Your task to perform on an android device: turn vacation reply on in the gmail app Image 0: 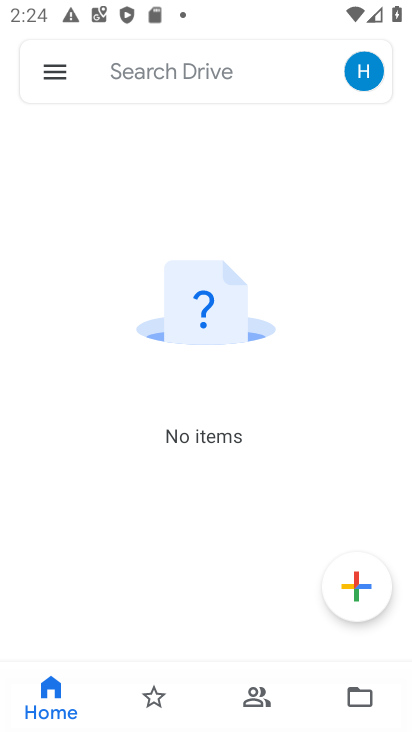
Step 0: press home button
Your task to perform on an android device: turn vacation reply on in the gmail app Image 1: 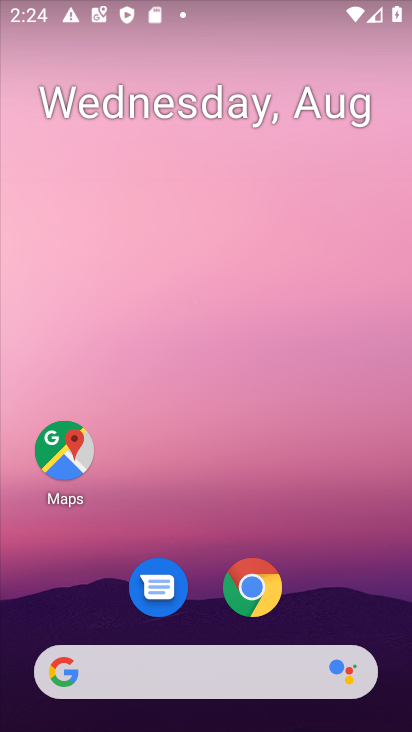
Step 1: drag from (56, 359) to (214, 0)
Your task to perform on an android device: turn vacation reply on in the gmail app Image 2: 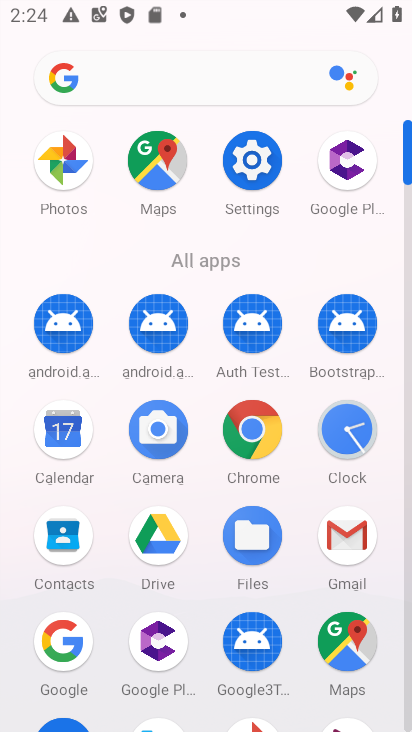
Step 2: click (345, 533)
Your task to perform on an android device: turn vacation reply on in the gmail app Image 3: 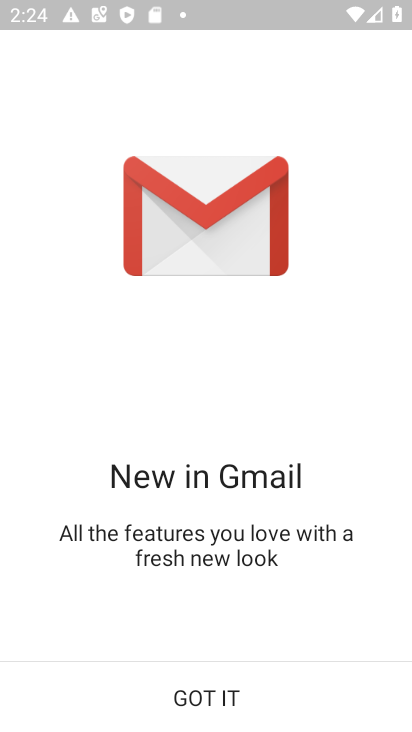
Step 3: click (198, 698)
Your task to perform on an android device: turn vacation reply on in the gmail app Image 4: 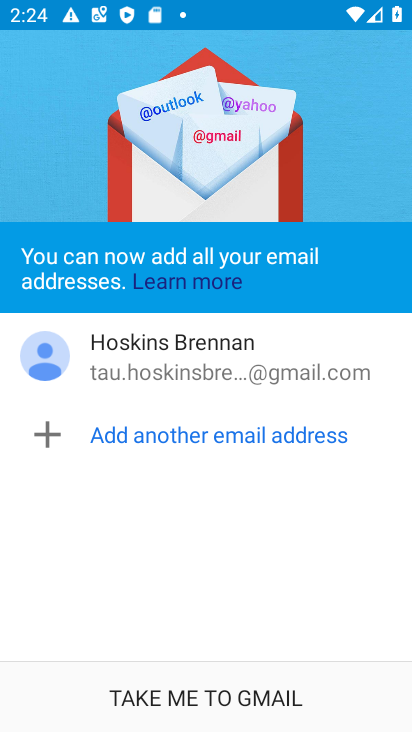
Step 4: click (177, 700)
Your task to perform on an android device: turn vacation reply on in the gmail app Image 5: 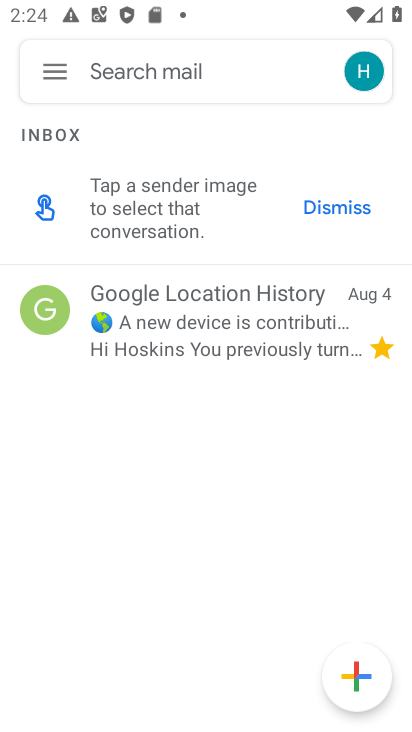
Step 5: click (49, 74)
Your task to perform on an android device: turn vacation reply on in the gmail app Image 6: 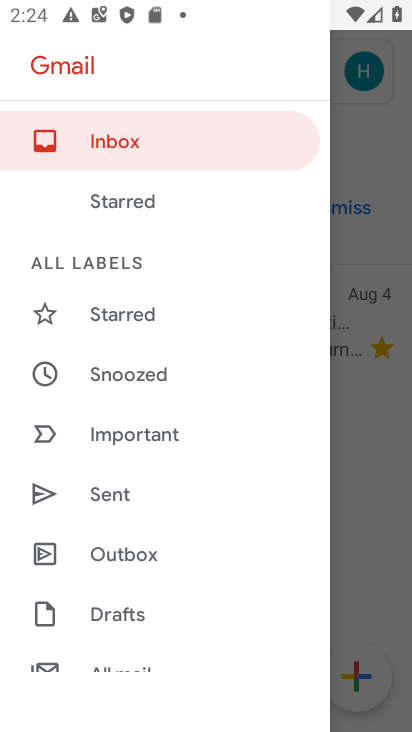
Step 6: drag from (10, 528) to (148, 103)
Your task to perform on an android device: turn vacation reply on in the gmail app Image 7: 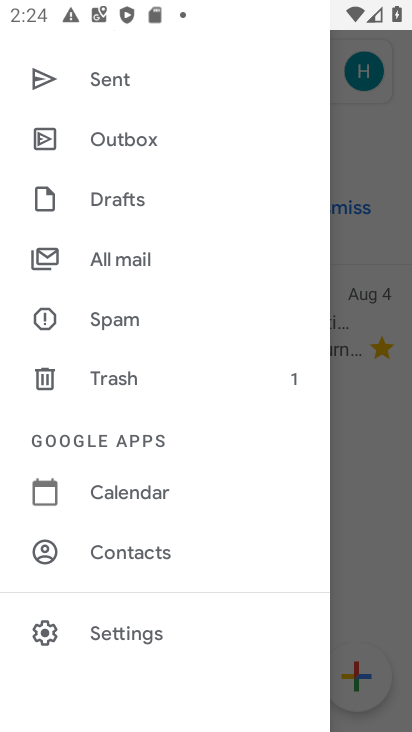
Step 7: click (67, 628)
Your task to perform on an android device: turn vacation reply on in the gmail app Image 8: 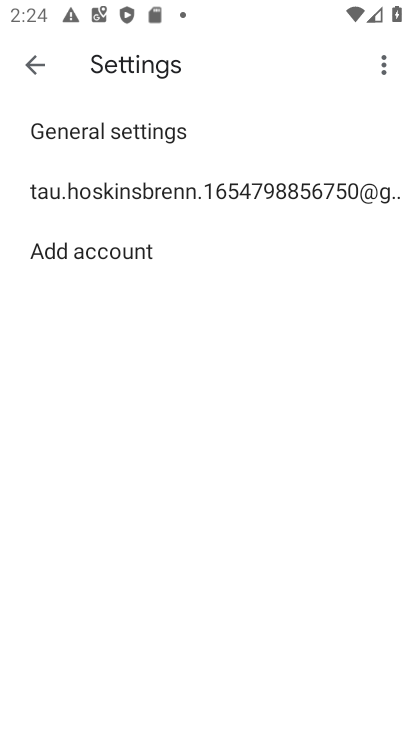
Step 8: click (144, 192)
Your task to perform on an android device: turn vacation reply on in the gmail app Image 9: 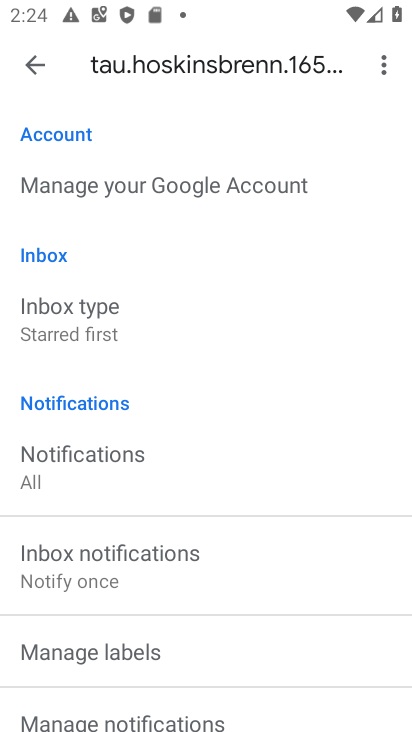
Step 9: drag from (20, 438) to (134, 173)
Your task to perform on an android device: turn vacation reply on in the gmail app Image 10: 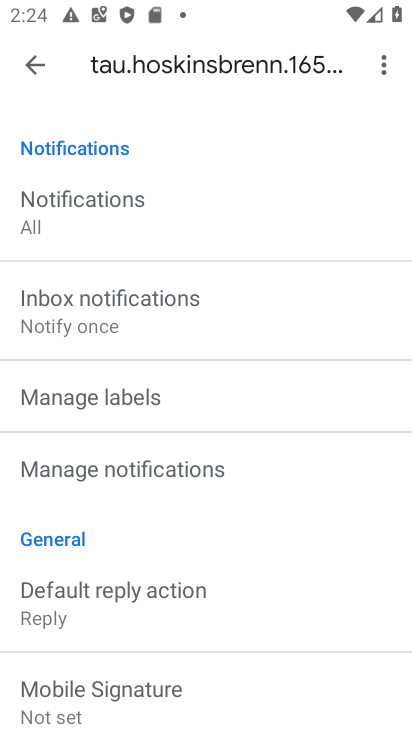
Step 10: drag from (33, 571) to (153, 130)
Your task to perform on an android device: turn vacation reply on in the gmail app Image 11: 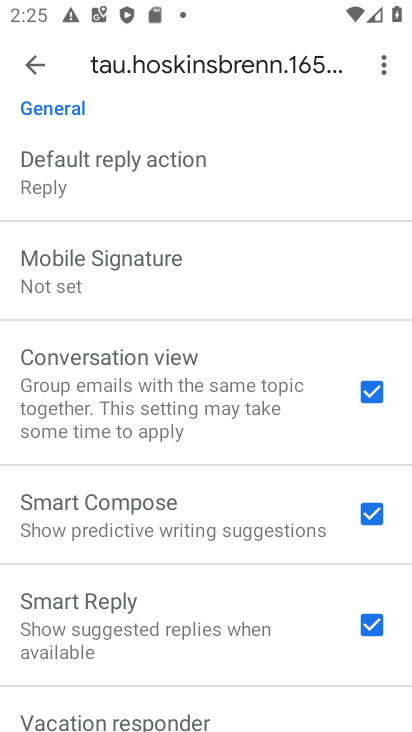
Step 11: drag from (45, 495) to (196, 90)
Your task to perform on an android device: turn vacation reply on in the gmail app Image 12: 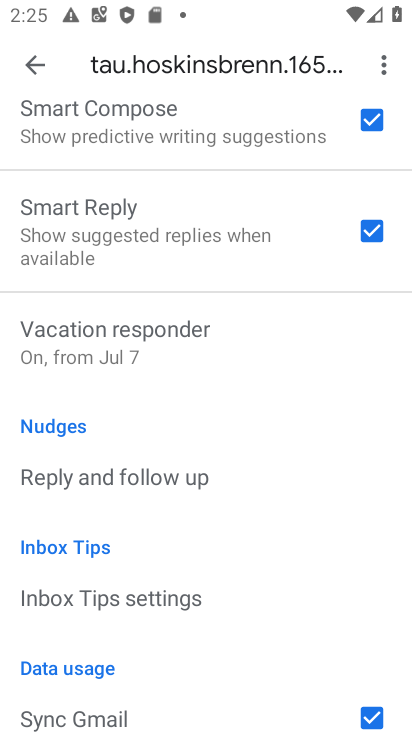
Step 12: click (134, 347)
Your task to perform on an android device: turn vacation reply on in the gmail app Image 13: 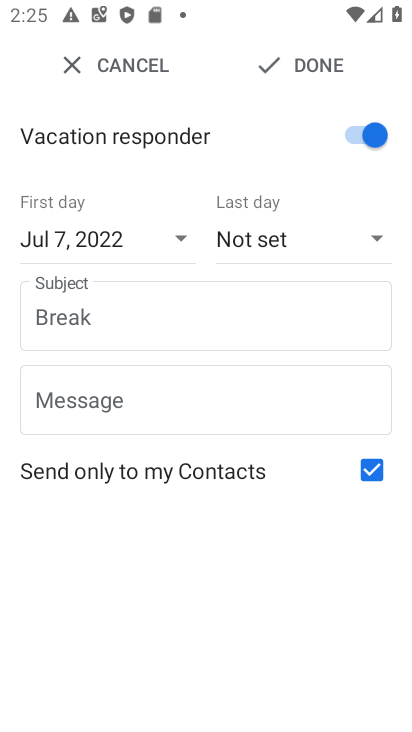
Step 13: click (179, 236)
Your task to perform on an android device: turn vacation reply on in the gmail app Image 14: 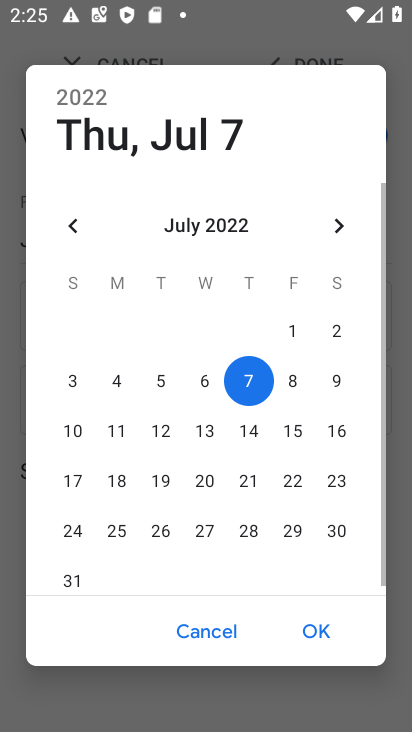
Step 14: click (309, 627)
Your task to perform on an android device: turn vacation reply on in the gmail app Image 15: 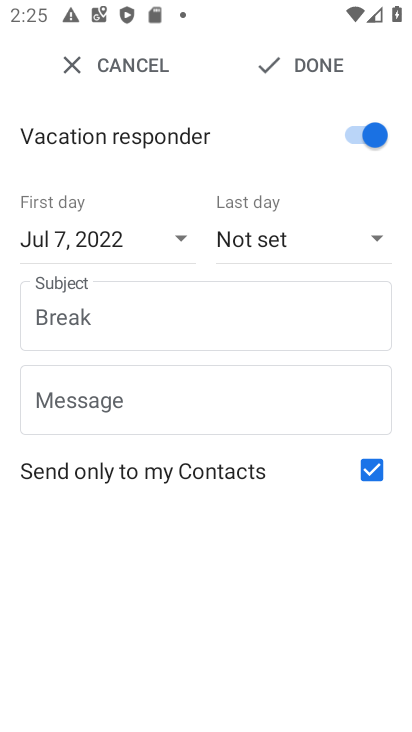
Step 15: click (313, 60)
Your task to perform on an android device: turn vacation reply on in the gmail app Image 16: 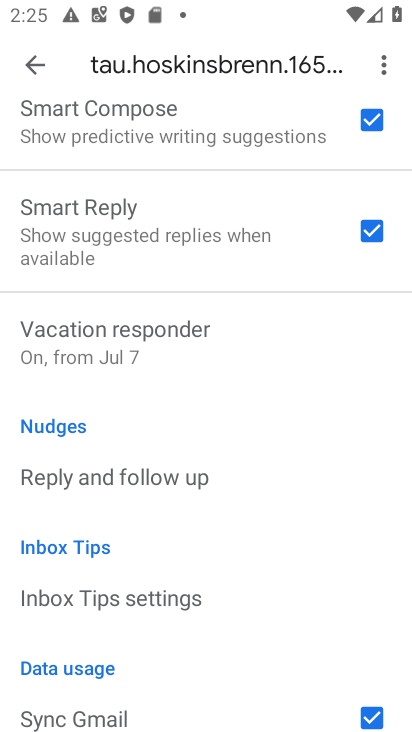
Step 16: task complete